Your task to perform on an android device: When is my next meeting? Image 0: 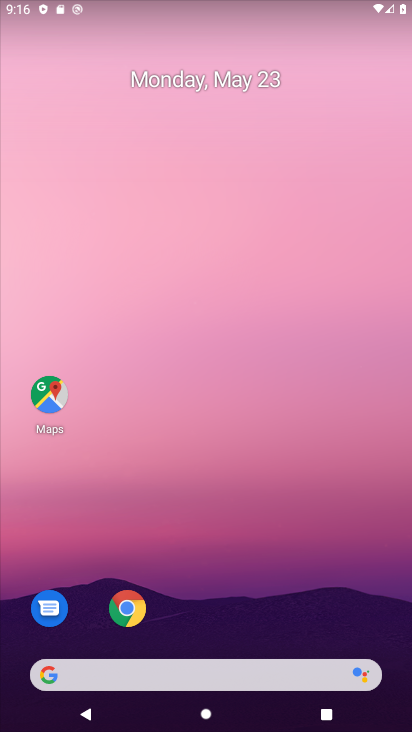
Step 0: drag from (234, 620) to (217, 95)
Your task to perform on an android device: When is my next meeting? Image 1: 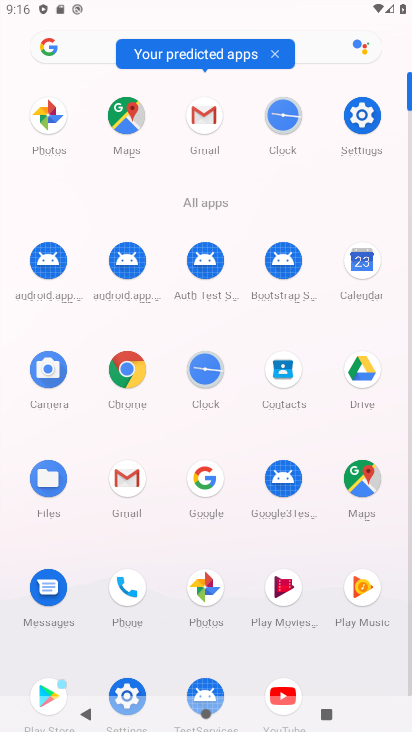
Step 1: click (361, 281)
Your task to perform on an android device: When is my next meeting? Image 2: 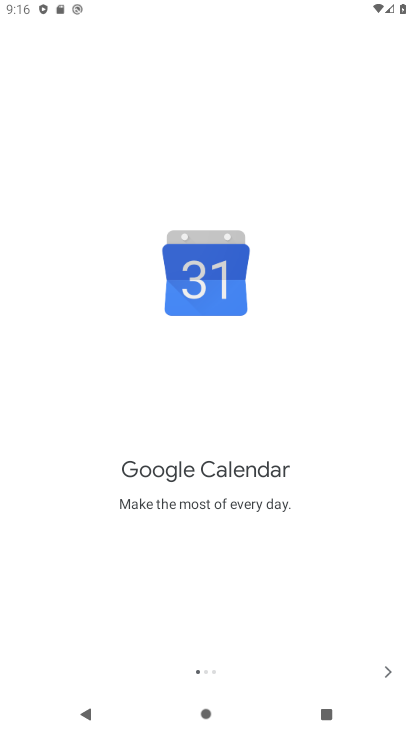
Step 2: click (379, 659)
Your task to perform on an android device: When is my next meeting? Image 3: 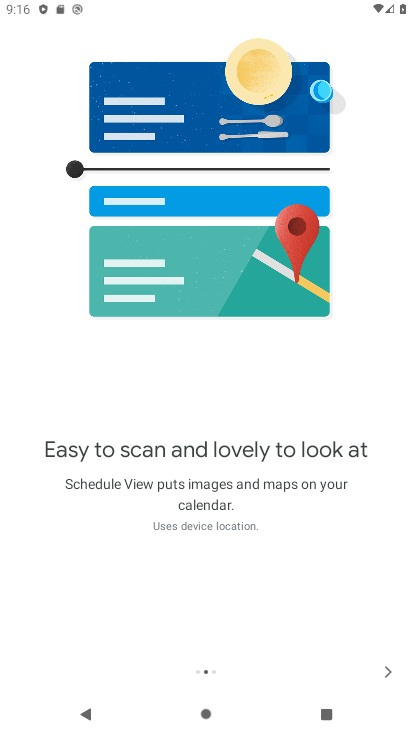
Step 3: click (385, 667)
Your task to perform on an android device: When is my next meeting? Image 4: 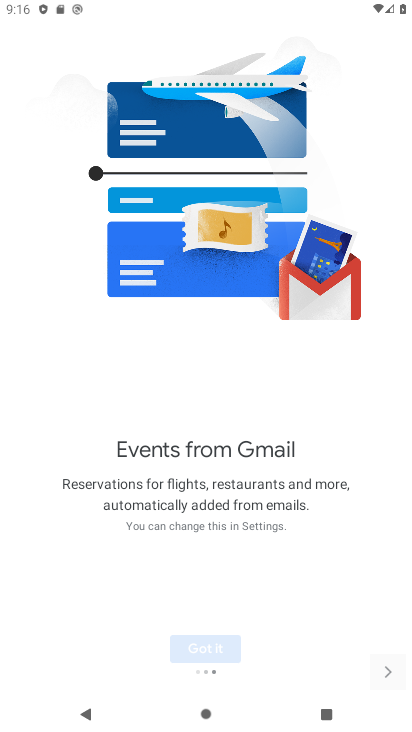
Step 4: click (385, 667)
Your task to perform on an android device: When is my next meeting? Image 5: 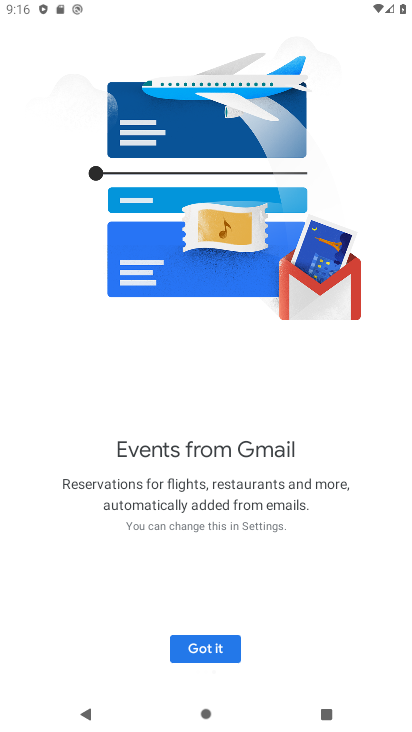
Step 5: click (385, 667)
Your task to perform on an android device: When is my next meeting? Image 6: 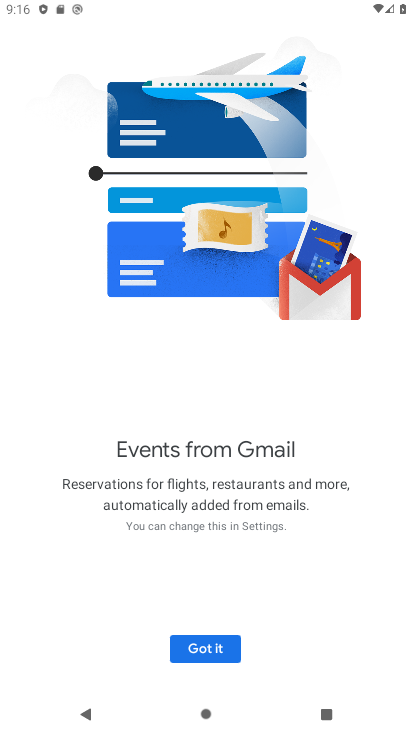
Step 6: click (385, 667)
Your task to perform on an android device: When is my next meeting? Image 7: 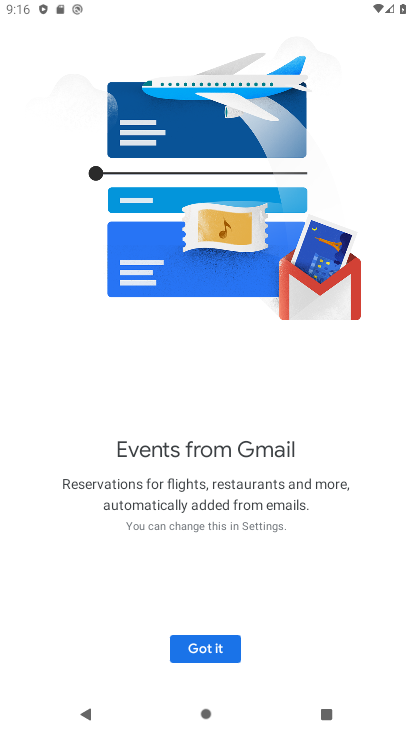
Step 7: click (234, 653)
Your task to perform on an android device: When is my next meeting? Image 8: 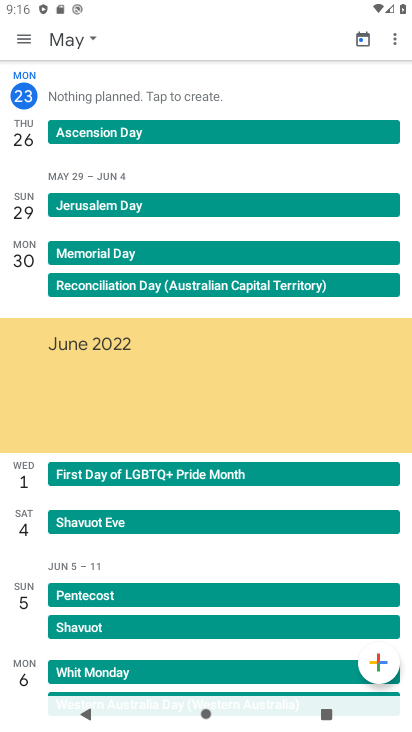
Step 8: click (59, 43)
Your task to perform on an android device: When is my next meeting? Image 9: 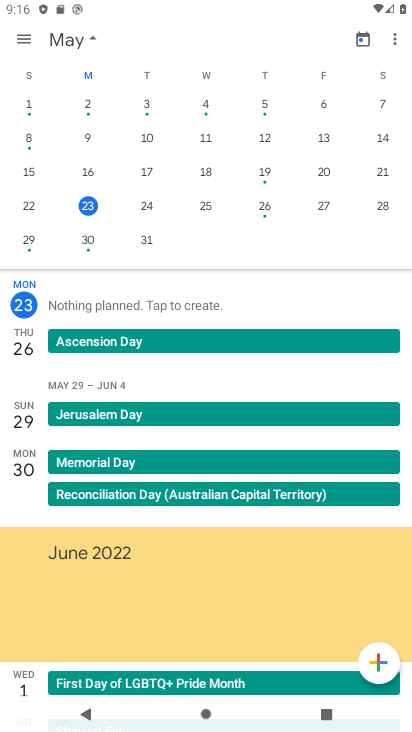
Step 9: click (142, 211)
Your task to perform on an android device: When is my next meeting? Image 10: 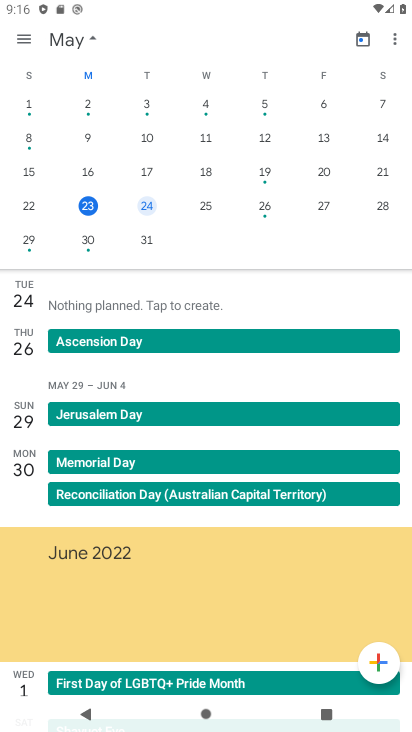
Step 10: task complete